Your task to perform on an android device: move an email to a new category in the gmail app Image 0: 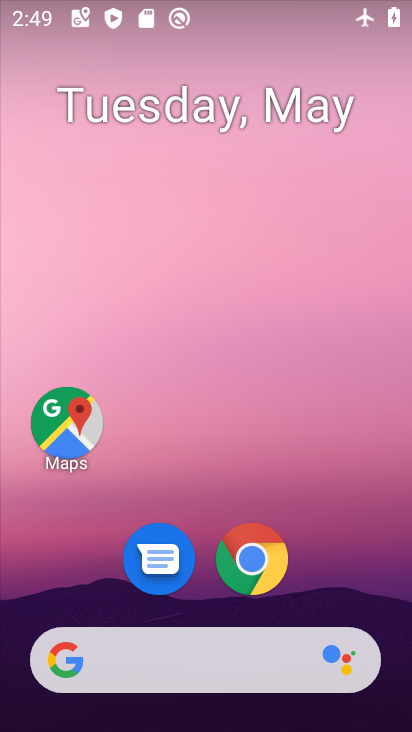
Step 0: drag from (205, 664) to (350, 106)
Your task to perform on an android device: move an email to a new category in the gmail app Image 1: 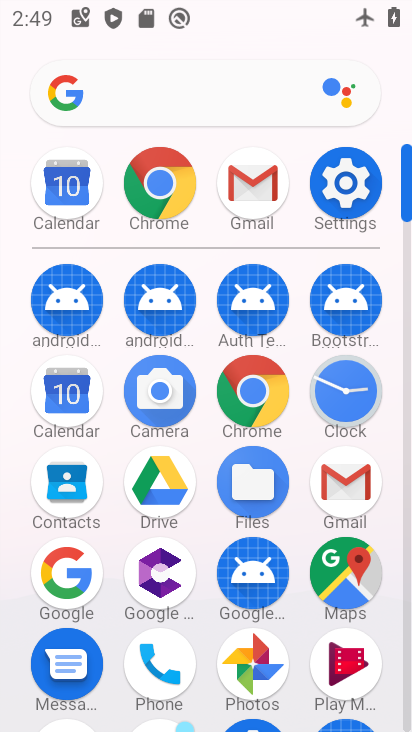
Step 1: click (261, 200)
Your task to perform on an android device: move an email to a new category in the gmail app Image 2: 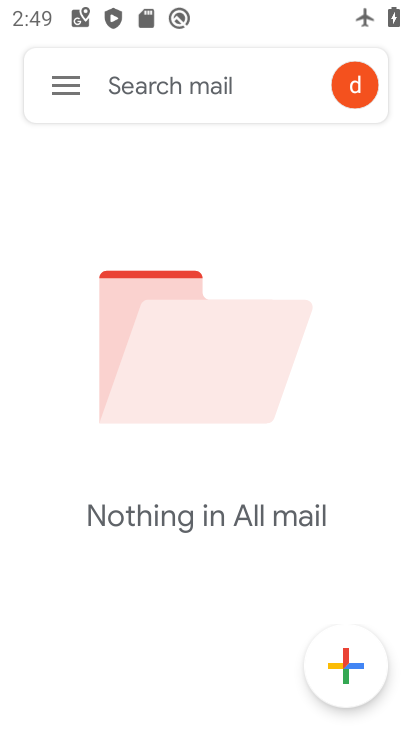
Step 2: task complete